Your task to perform on an android device: Go to network settings Image 0: 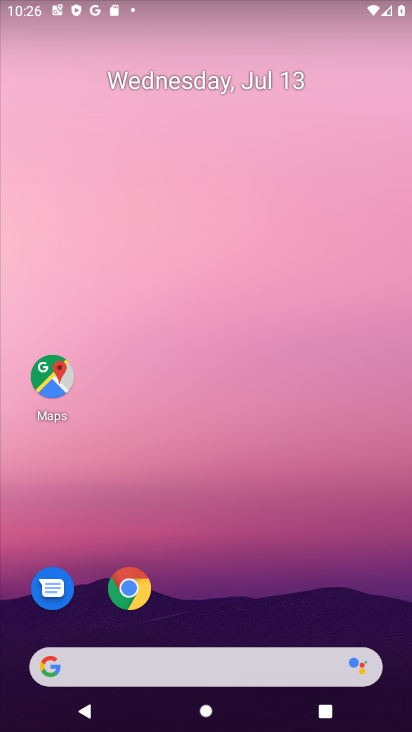
Step 0: drag from (245, 613) to (284, 127)
Your task to perform on an android device: Go to network settings Image 1: 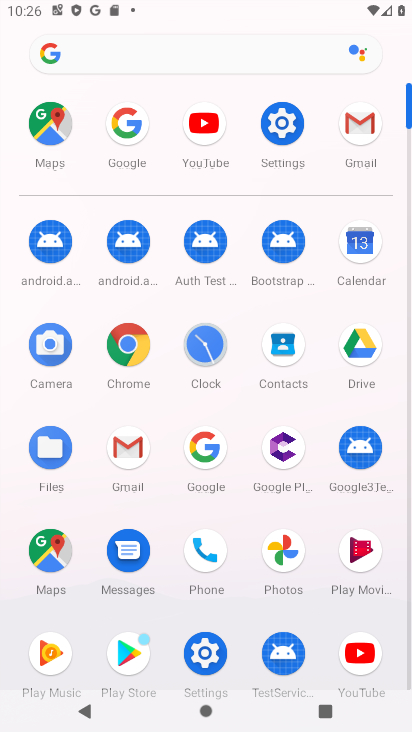
Step 1: click (293, 129)
Your task to perform on an android device: Go to network settings Image 2: 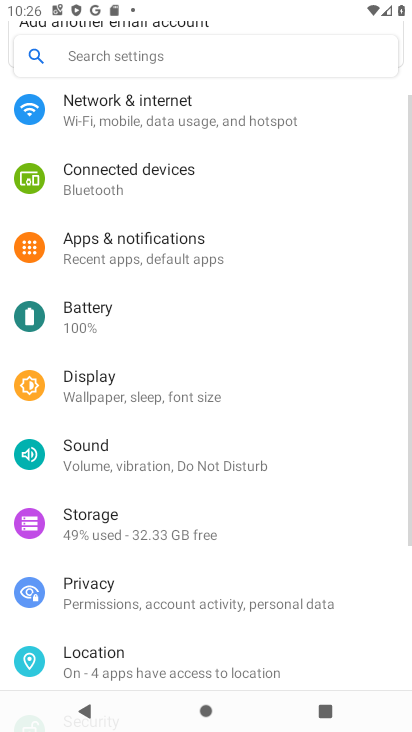
Step 2: drag from (195, 143) to (269, 543)
Your task to perform on an android device: Go to network settings Image 3: 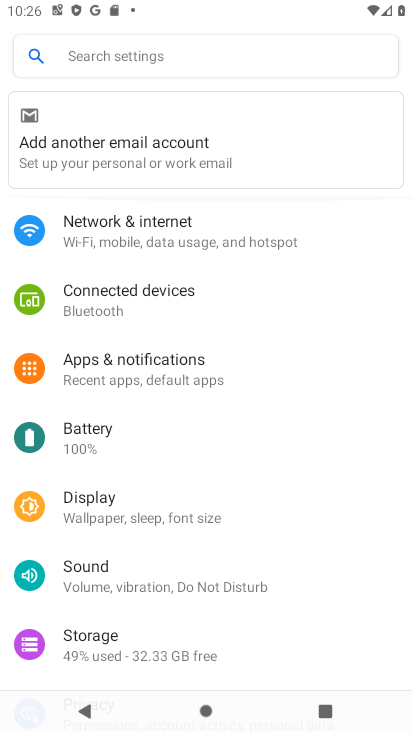
Step 3: click (159, 230)
Your task to perform on an android device: Go to network settings Image 4: 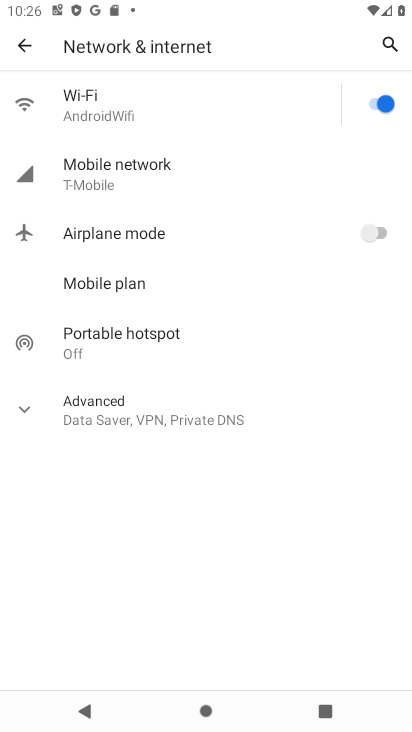
Step 4: click (130, 169)
Your task to perform on an android device: Go to network settings Image 5: 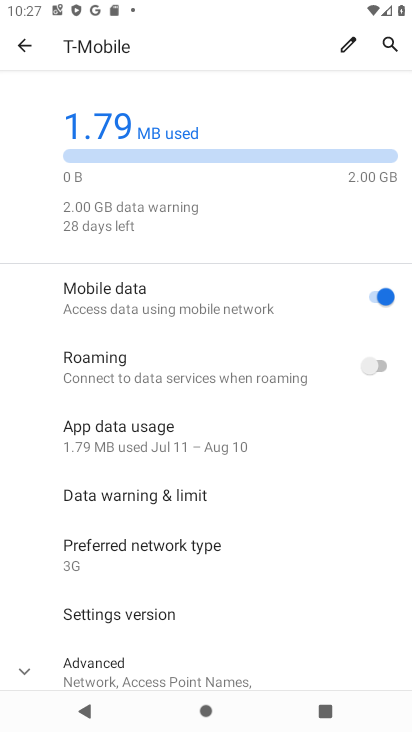
Step 5: task complete